Your task to perform on an android device: Set the phone to "Do not disturb". Image 0: 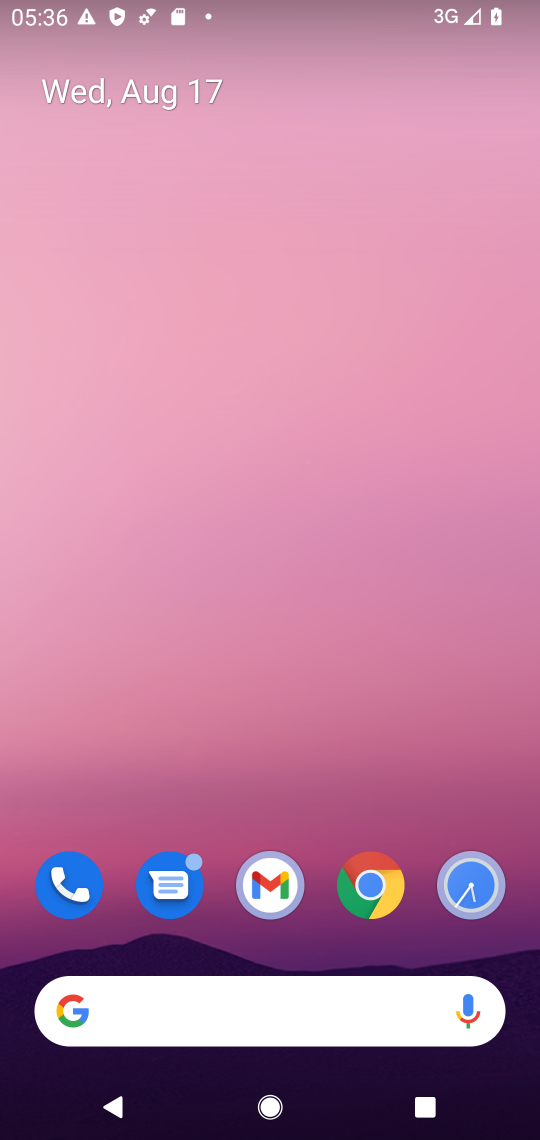
Step 0: drag from (407, 18) to (320, 589)
Your task to perform on an android device: Set the phone to "Do not disturb". Image 1: 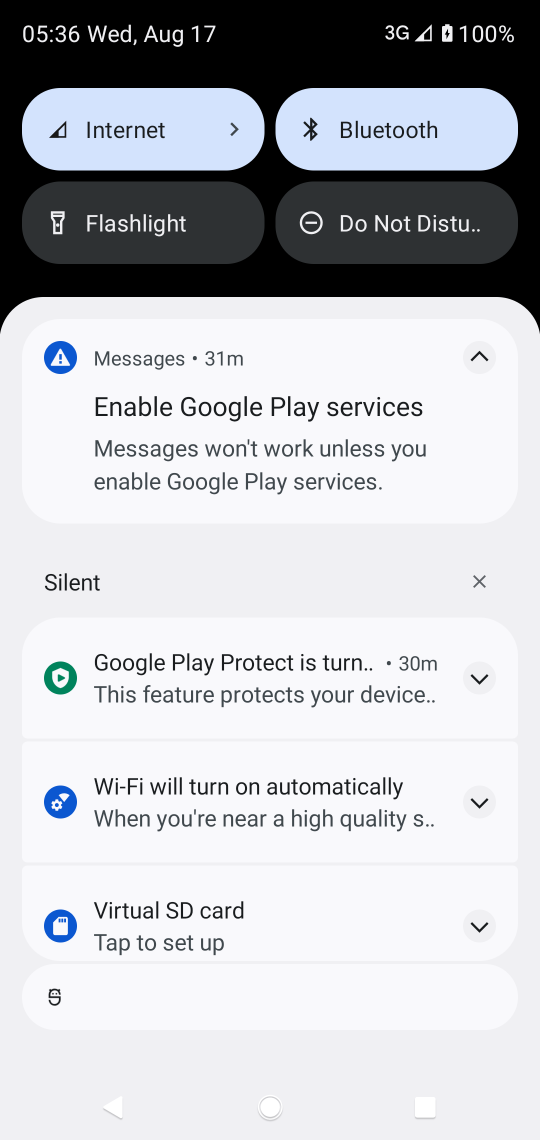
Step 1: click (439, 226)
Your task to perform on an android device: Set the phone to "Do not disturb". Image 2: 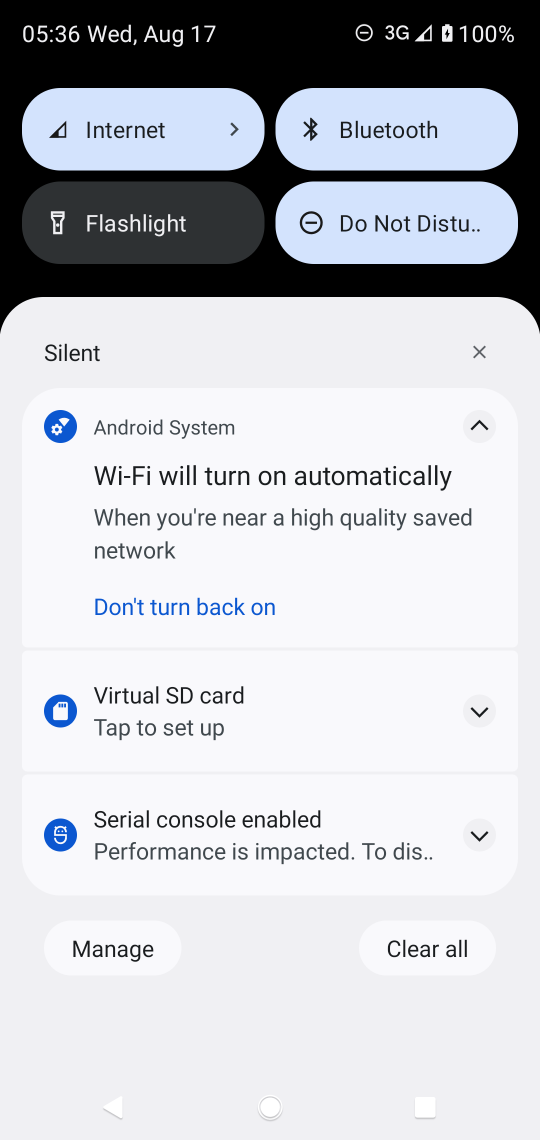
Step 2: task complete